Your task to perform on an android device: move an email to a new category in the gmail app Image 0: 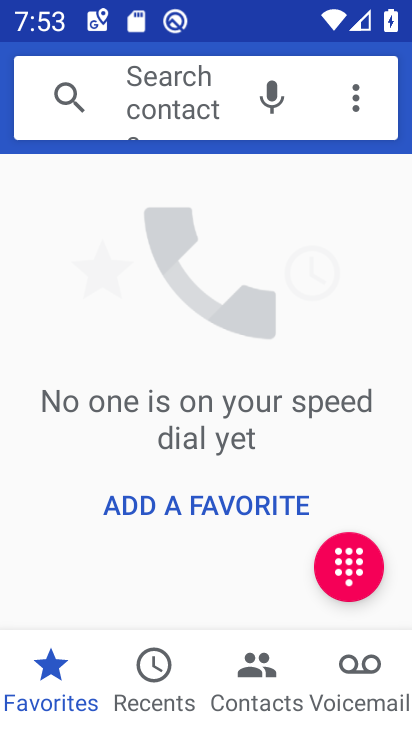
Step 0: press back button
Your task to perform on an android device: move an email to a new category in the gmail app Image 1: 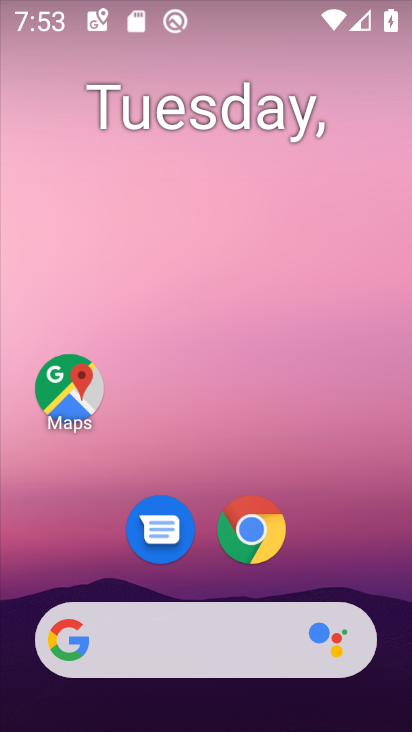
Step 1: drag from (214, 321) to (288, 32)
Your task to perform on an android device: move an email to a new category in the gmail app Image 2: 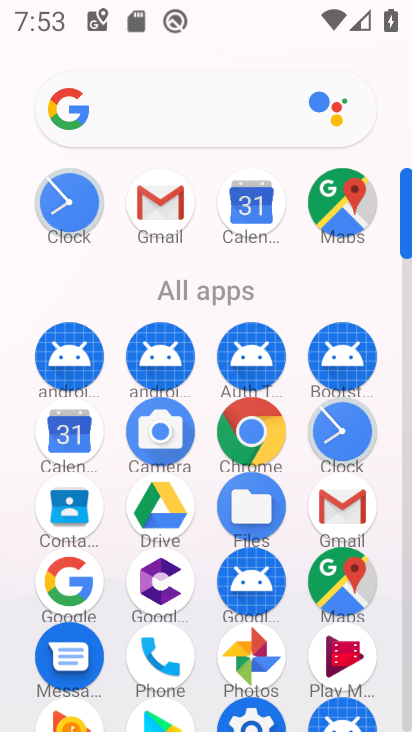
Step 2: click (158, 195)
Your task to perform on an android device: move an email to a new category in the gmail app Image 3: 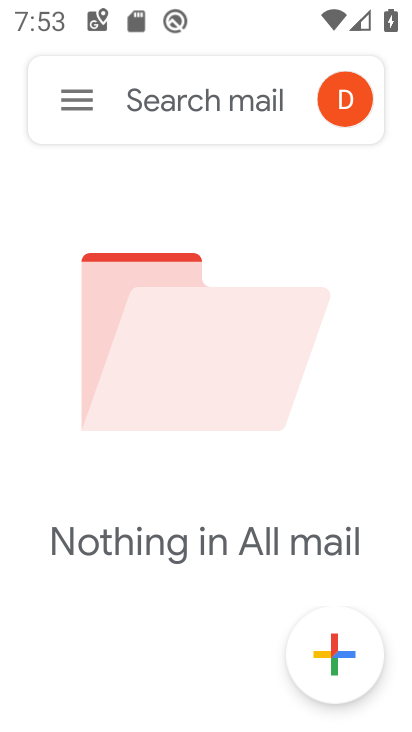
Step 3: task complete